Your task to perform on an android device: toggle data saver in the chrome app Image 0: 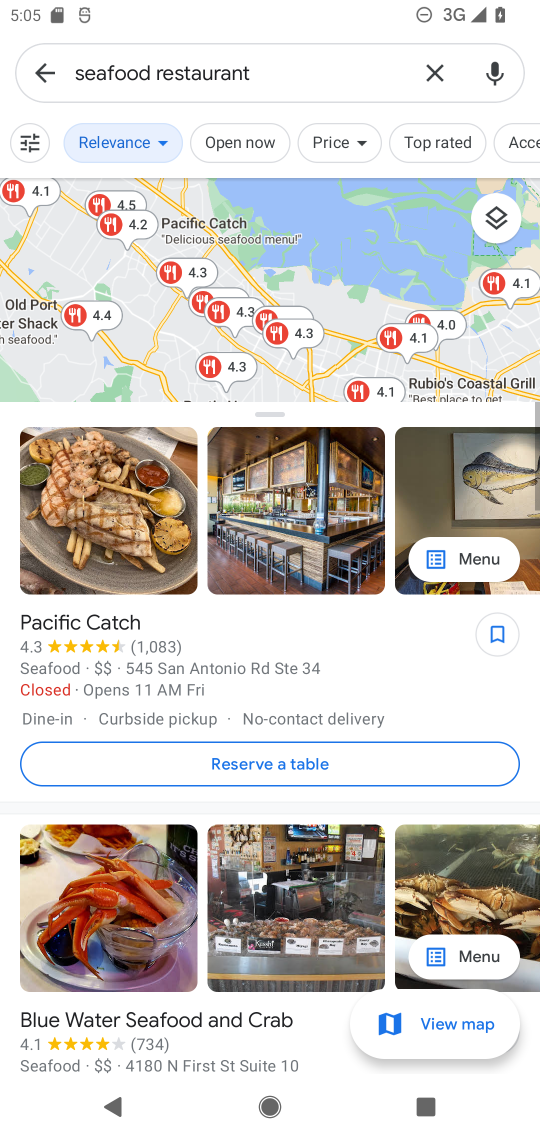
Step 0: press home button
Your task to perform on an android device: toggle data saver in the chrome app Image 1: 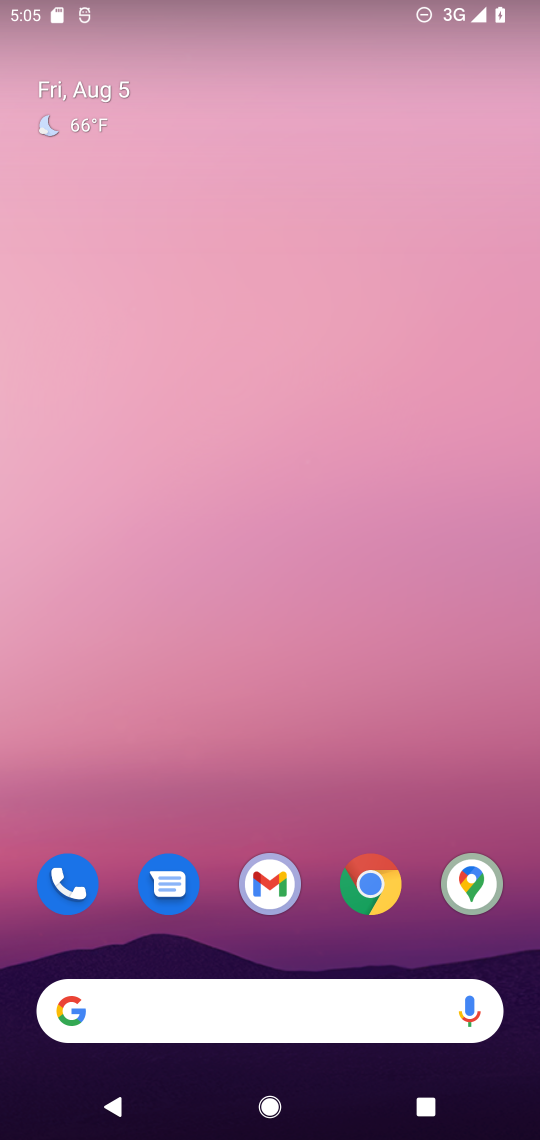
Step 1: drag from (502, 977) to (234, 148)
Your task to perform on an android device: toggle data saver in the chrome app Image 2: 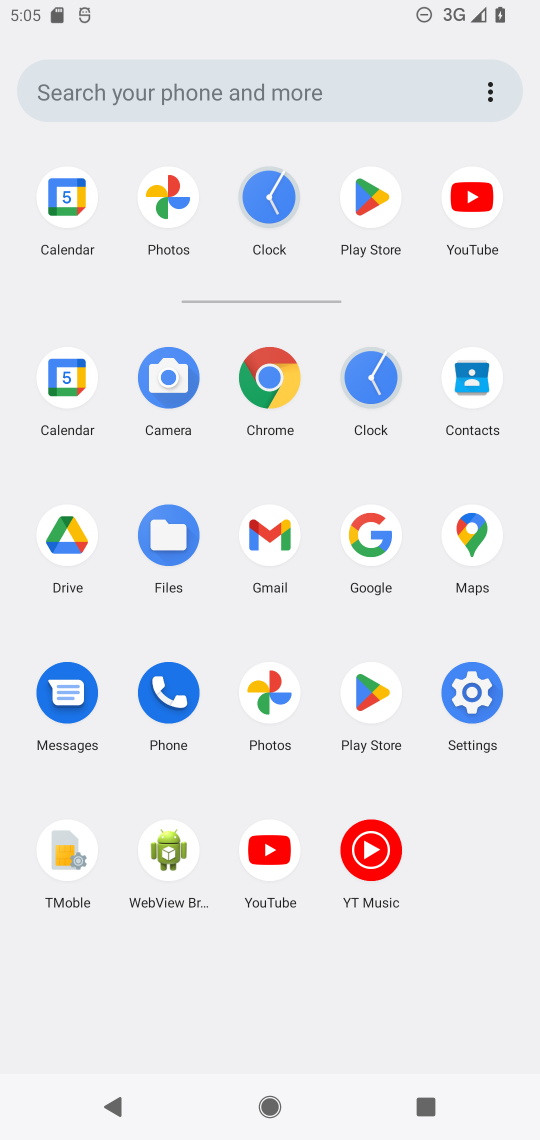
Step 2: click (268, 385)
Your task to perform on an android device: toggle data saver in the chrome app Image 3: 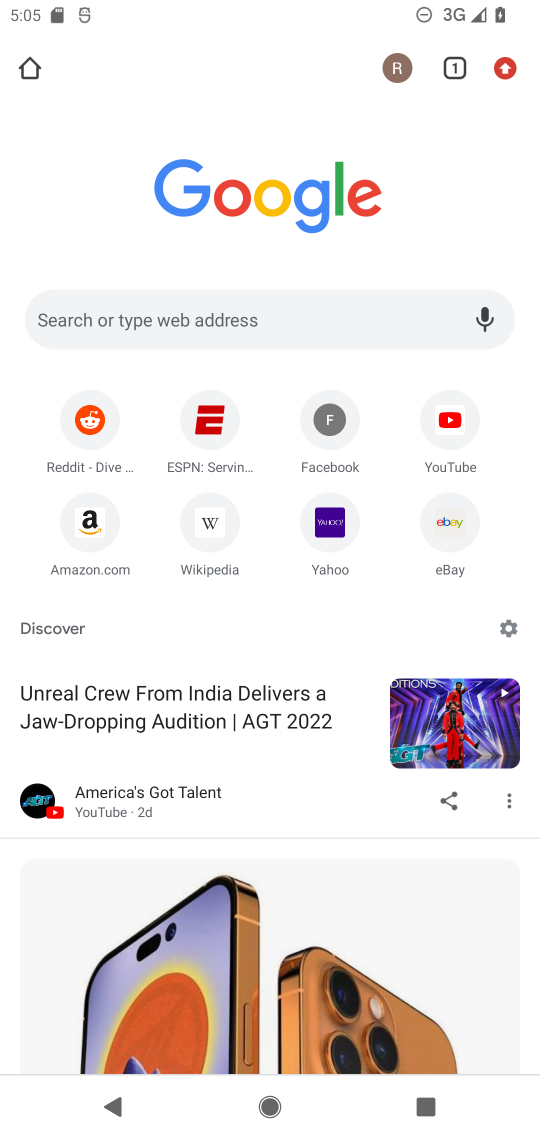
Step 3: click (513, 71)
Your task to perform on an android device: toggle data saver in the chrome app Image 4: 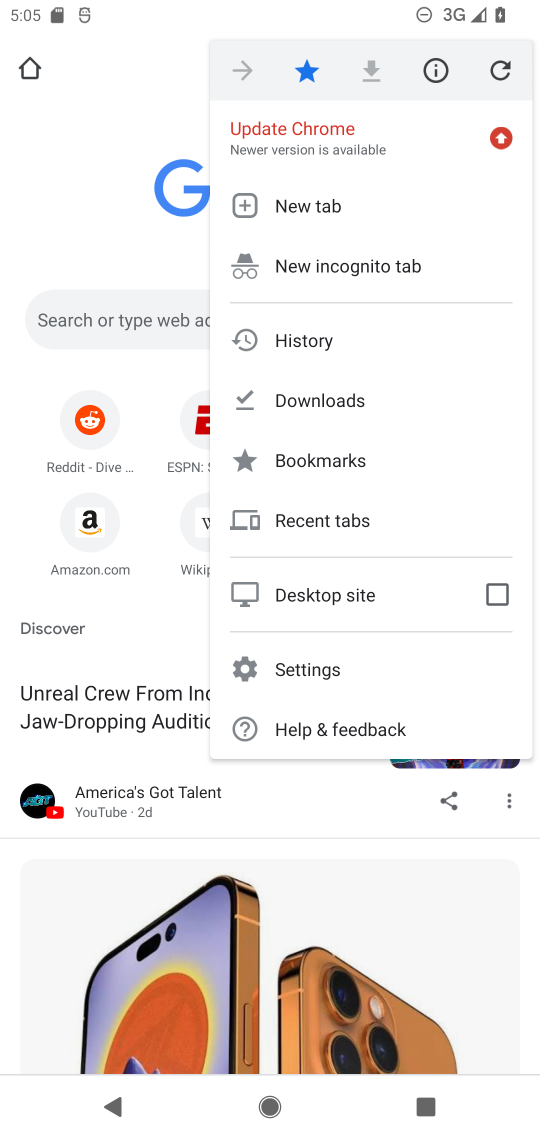
Step 4: click (343, 669)
Your task to perform on an android device: toggle data saver in the chrome app Image 5: 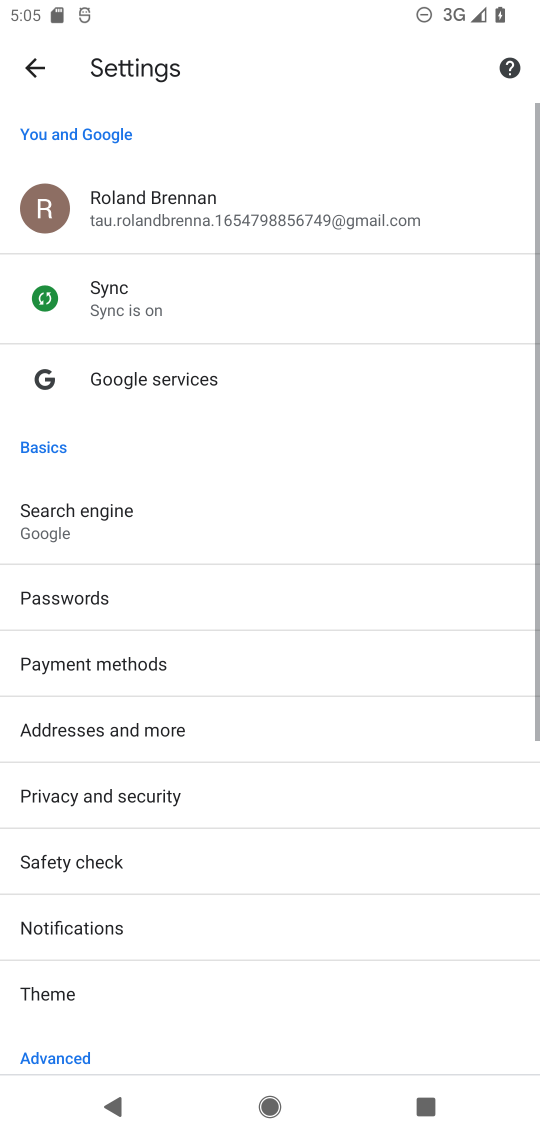
Step 5: drag from (110, 1047) to (232, 261)
Your task to perform on an android device: toggle data saver in the chrome app Image 6: 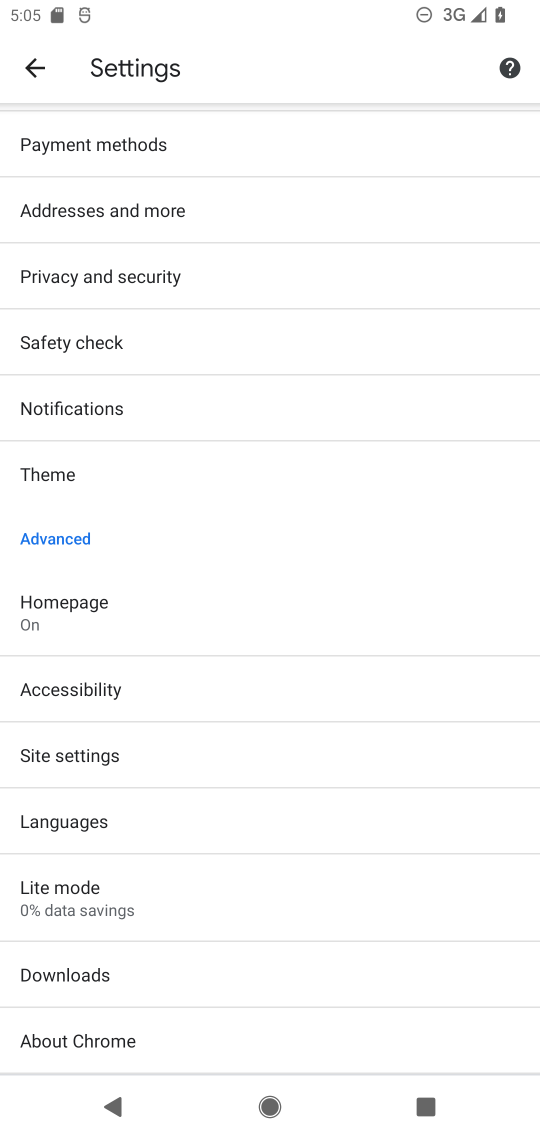
Step 6: click (100, 888)
Your task to perform on an android device: toggle data saver in the chrome app Image 7: 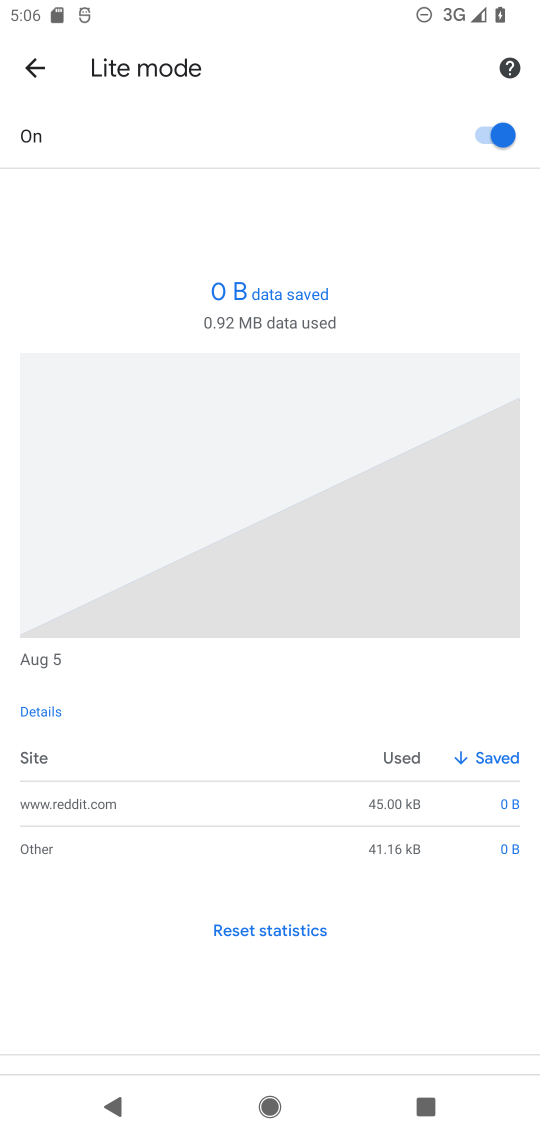
Step 7: click (481, 137)
Your task to perform on an android device: toggle data saver in the chrome app Image 8: 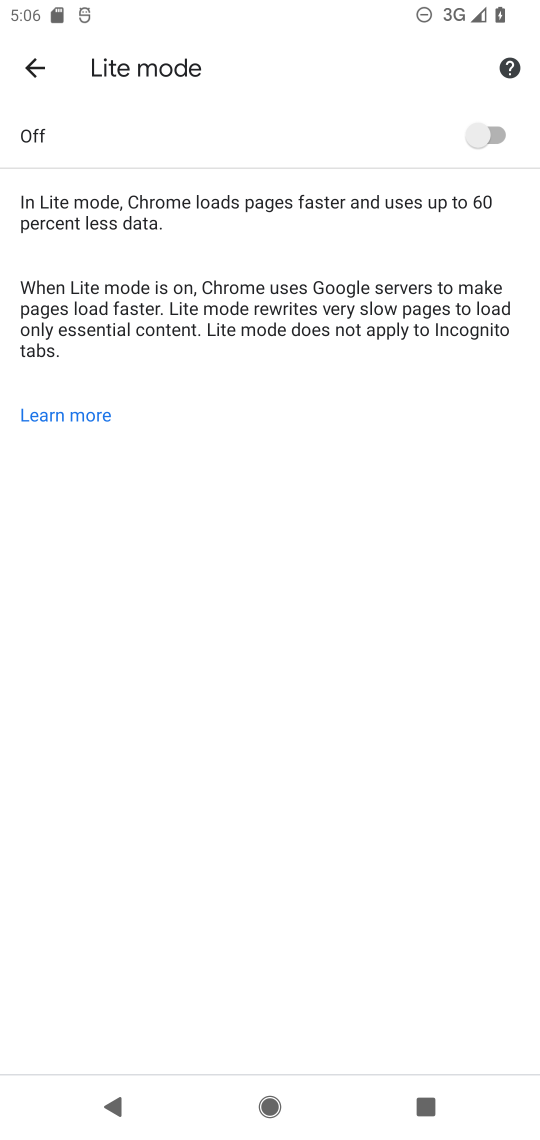
Step 8: task complete